Your task to perform on an android device: toggle priority inbox in the gmail app Image 0: 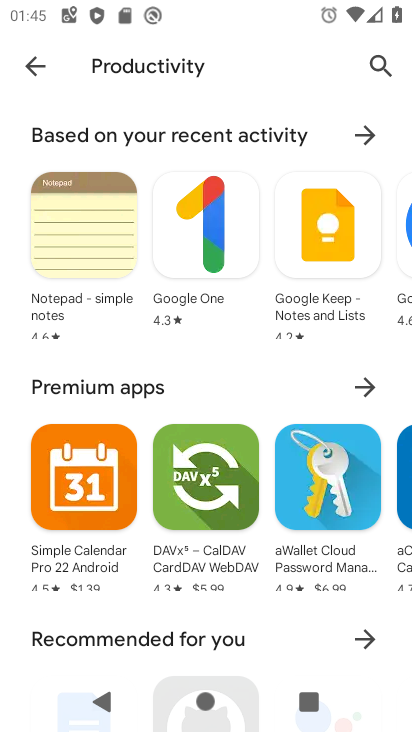
Step 0: press home button
Your task to perform on an android device: toggle priority inbox in the gmail app Image 1: 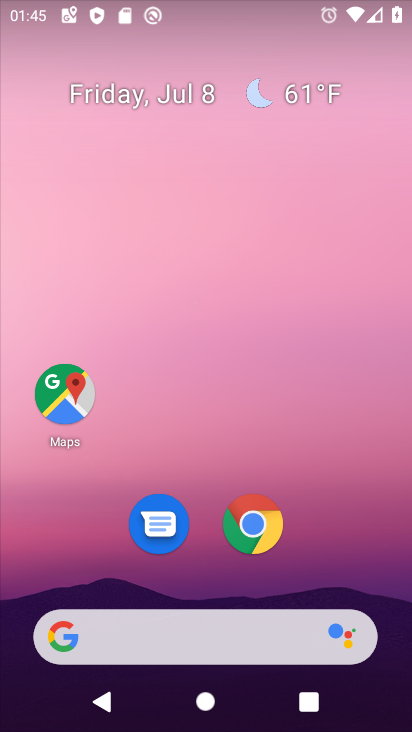
Step 1: drag from (329, 564) to (352, 70)
Your task to perform on an android device: toggle priority inbox in the gmail app Image 2: 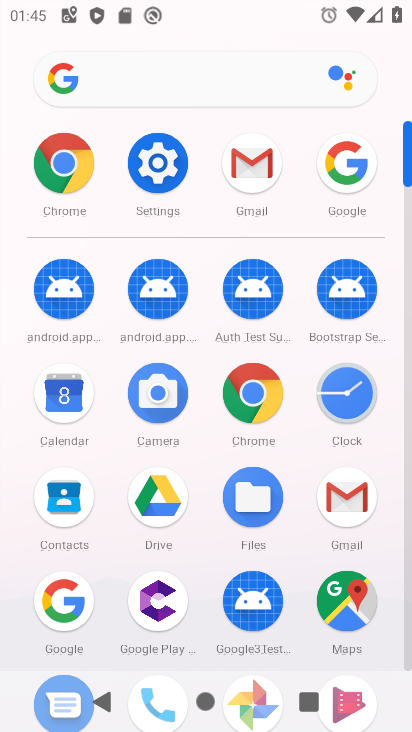
Step 2: click (257, 166)
Your task to perform on an android device: toggle priority inbox in the gmail app Image 3: 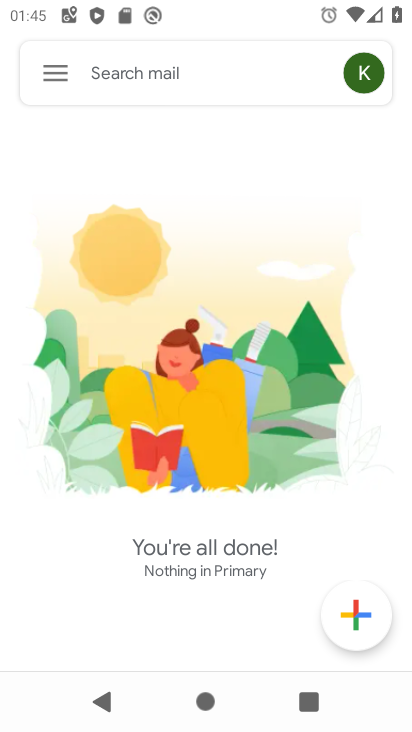
Step 3: click (59, 71)
Your task to perform on an android device: toggle priority inbox in the gmail app Image 4: 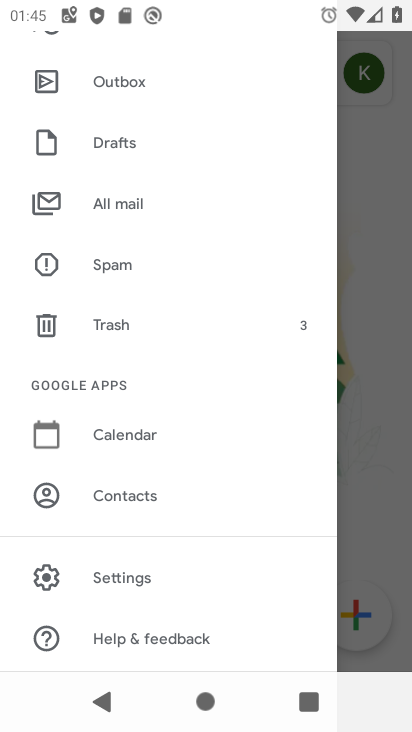
Step 4: click (145, 572)
Your task to perform on an android device: toggle priority inbox in the gmail app Image 5: 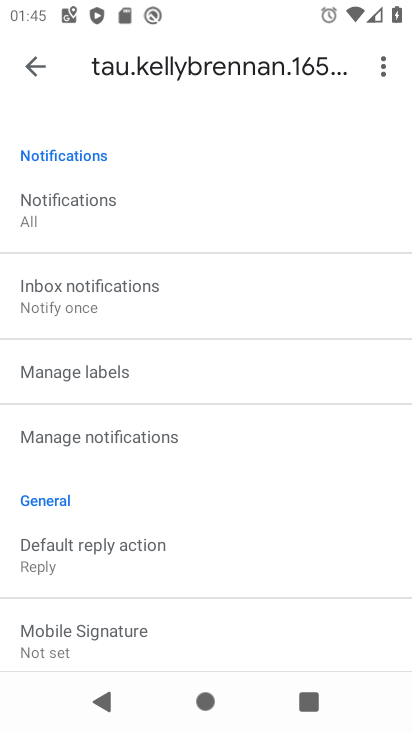
Step 5: drag from (279, 312) to (270, 614)
Your task to perform on an android device: toggle priority inbox in the gmail app Image 6: 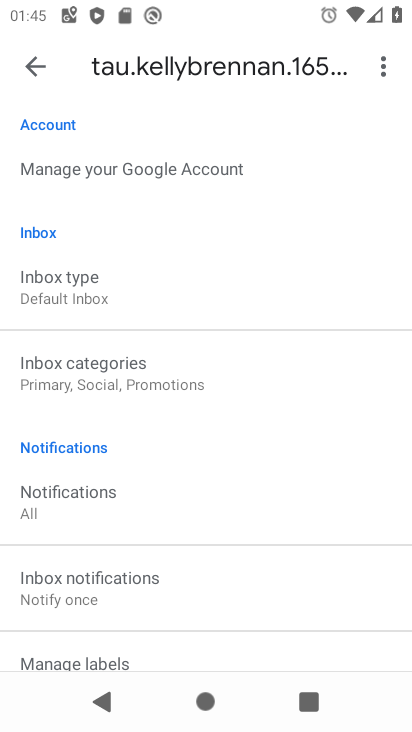
Step 6: click (78, 274)
Your task to perform on an android device: toggle priority inbox in the gmail app Image 7: 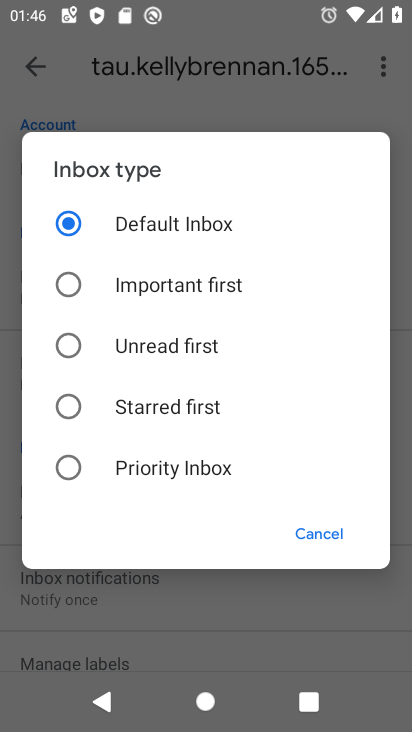
Step 7: click (64, 467)
Your task to perform on an android device: toggle priority inbox in the gmail app Image 8: 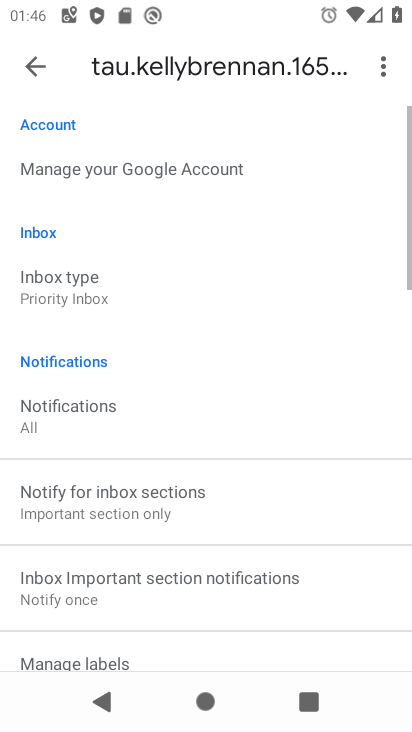
Step 8: task complete